Your task to perform on an android device: refresh tabs in the chrome app Image 0: 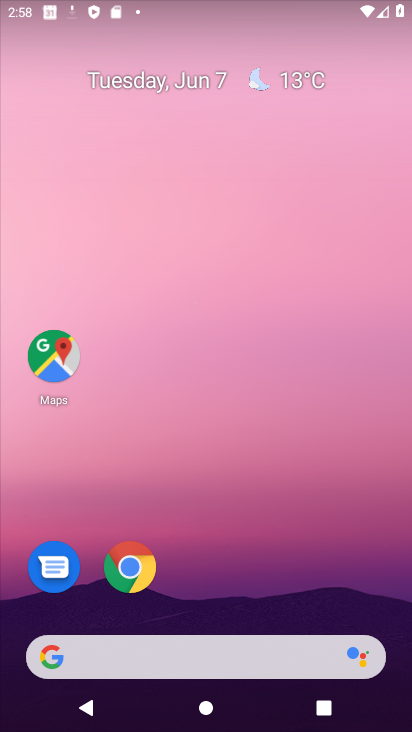
Step 0: click (123, 564)
Your task to perform on an android device: refresh tabs in the chrome app Image 1: 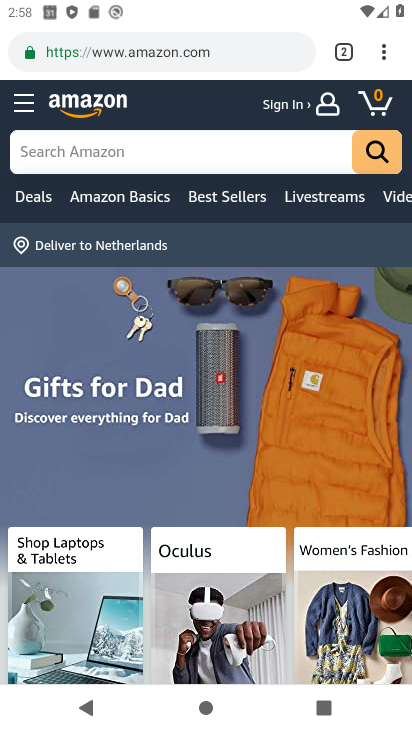
Step 1: click (386, 50)
Your task to perform on an android device: refresh tabs in the chrome app Image 2: 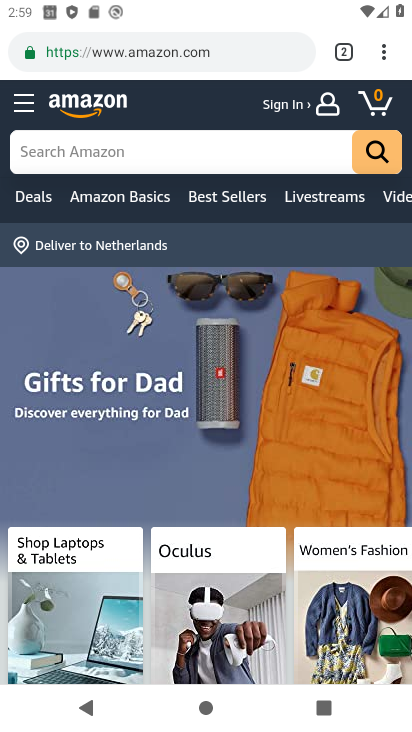
Step 2: task complete